Your task to perform on an android device: What's on my calendar today? Image 0: 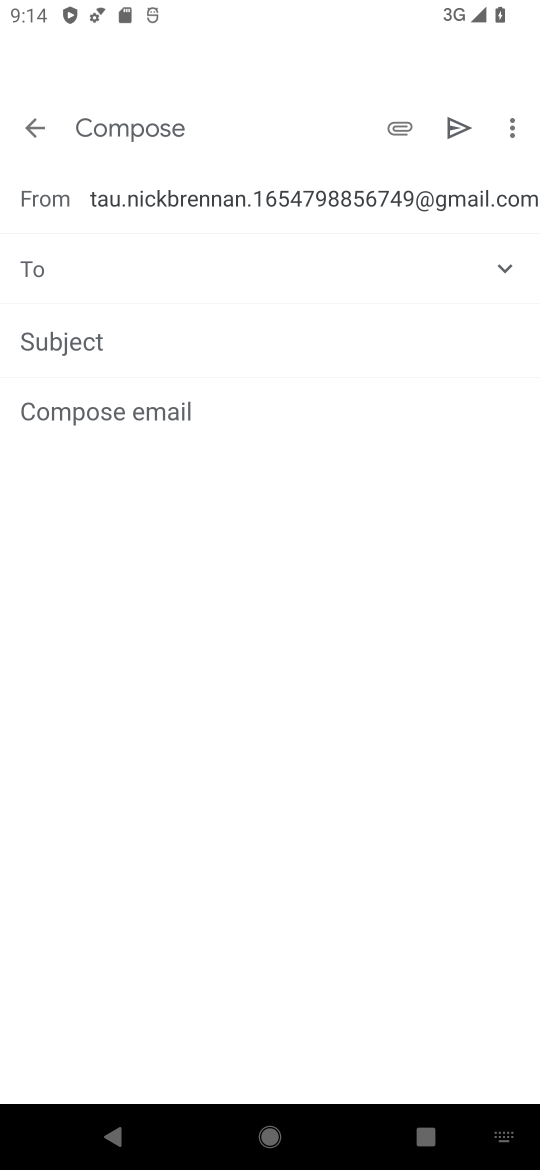
Step 0: press home button
Your task to perform on an android device: What's on my calendar today? Image 1: 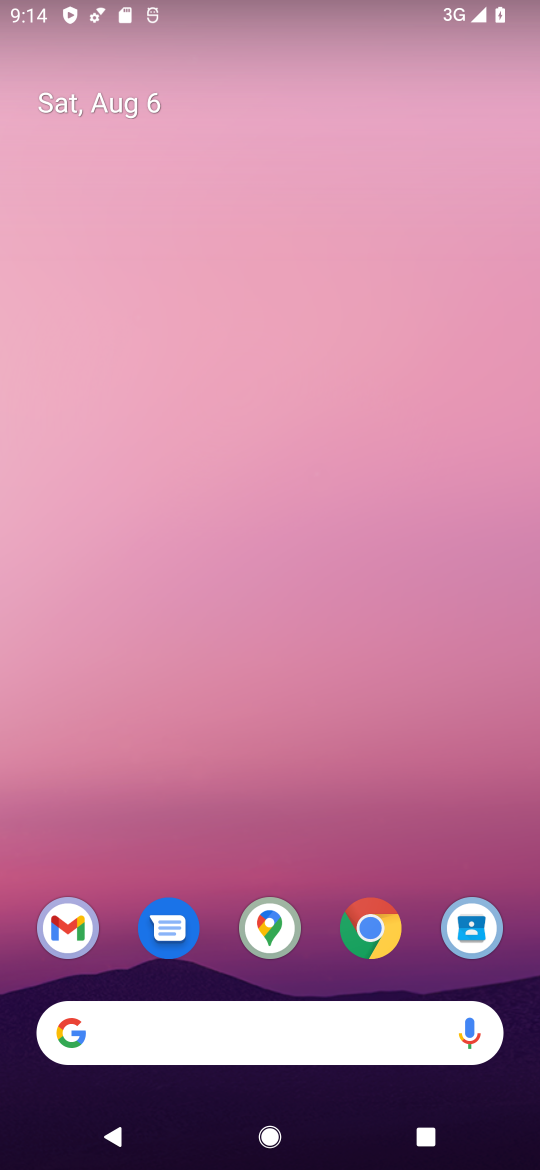
Step 1: drag from (187, 837) to (171, 133)
Your task to perform on an android device: What's on my calendar today? Image 2: 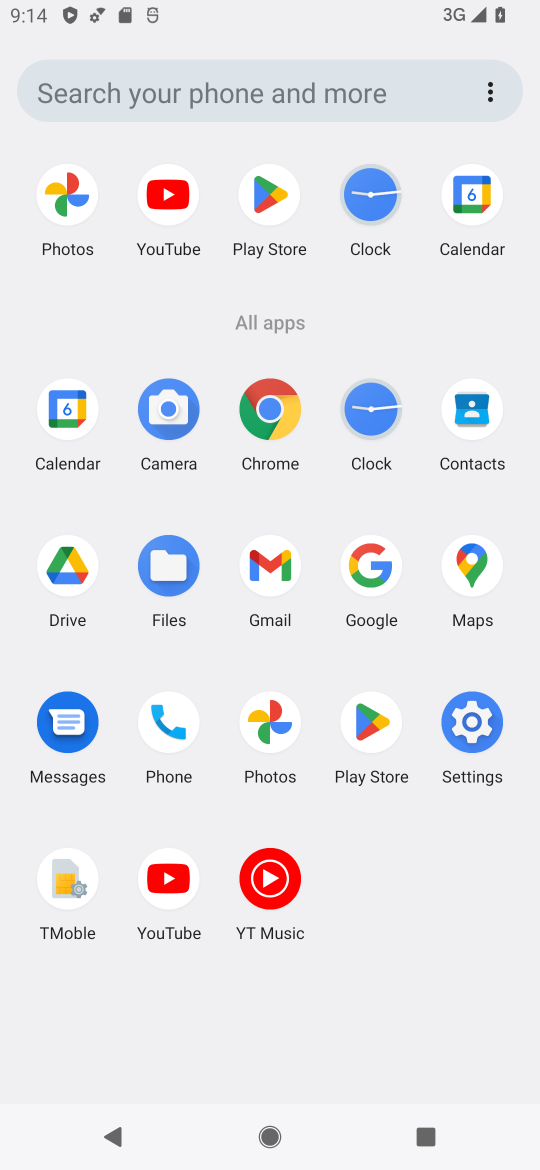
Step 2: click (474, 304)
Your task to perform on an android device: What's on my calendar today? Image 3: 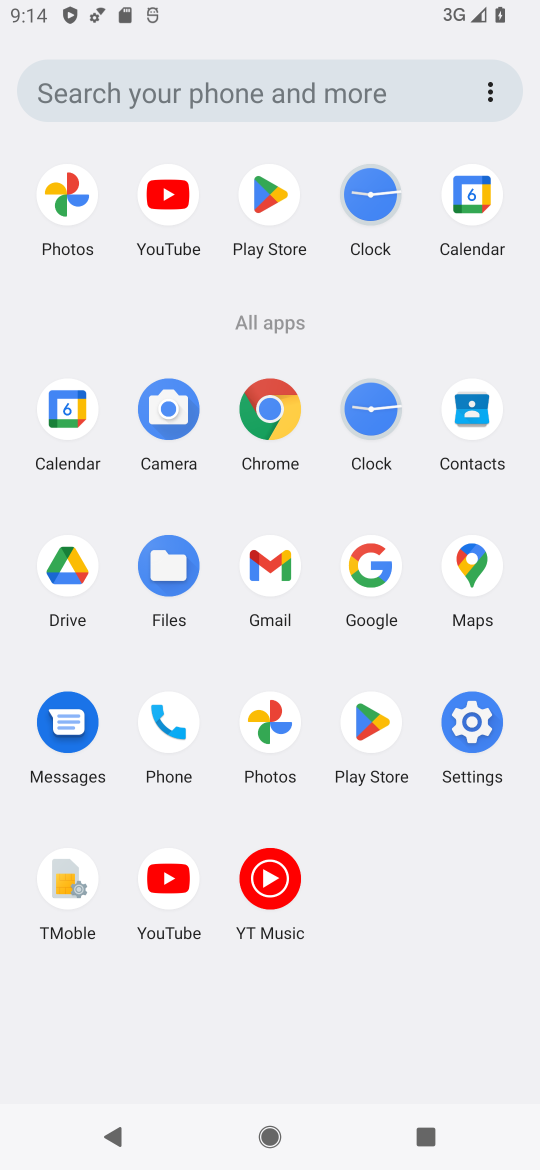
Step 3: click (468, 200)
Your task to perform on an android device: What's on my calendar today? Image 4: 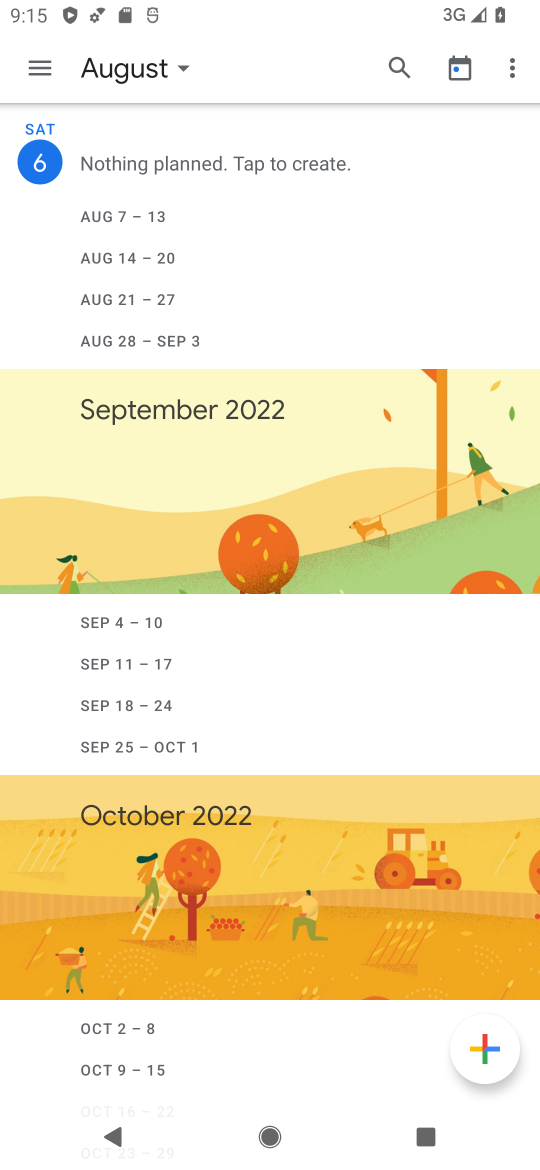
Step 4: click (31, 57)
Your task to perform on an android device: What's on my calendar today? Image 5: 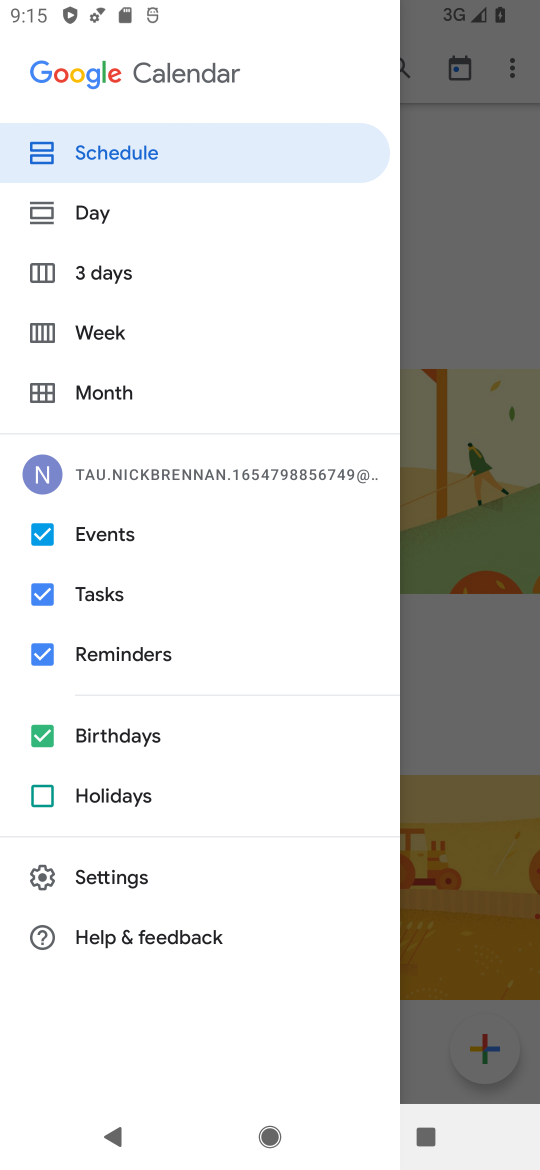
Step 5: click (89, 212)
Your task to perform on an android device: What's on my calendar today? Image 6: 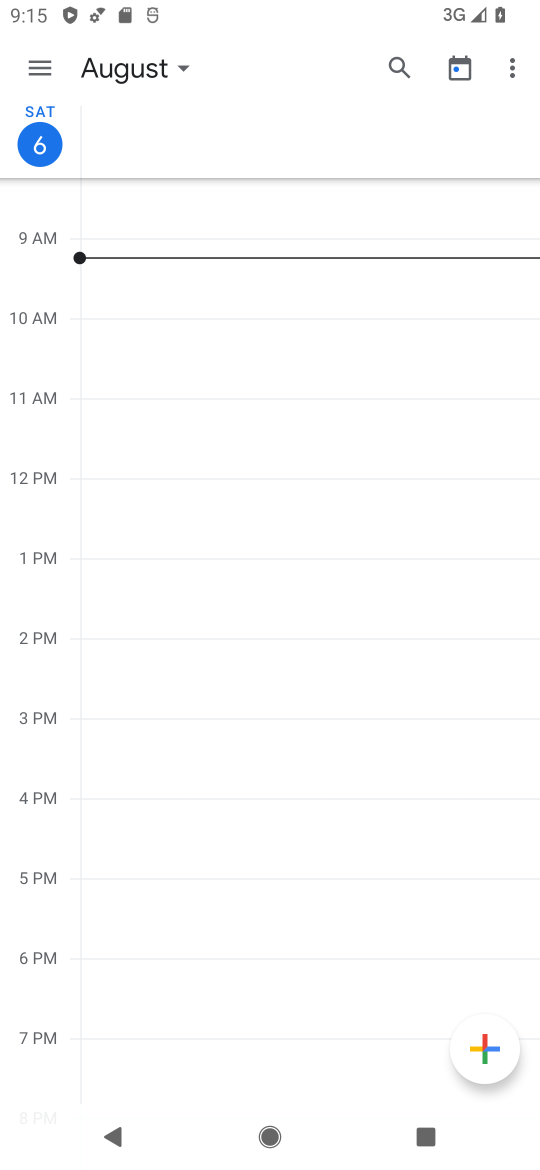
Step 6: task complete